Your task to perform on an android device: Open the calendar app, open the side menu, and click the "Day" option Image 0: 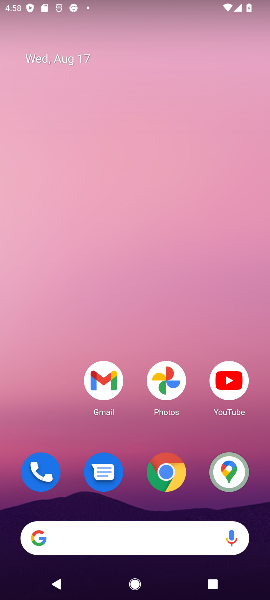
Step 0: drag from (138, 424) to (139, 83)
Your task to perform on an android device: Open the calendar app, open the side menu, and click the "Day" option Image 1: 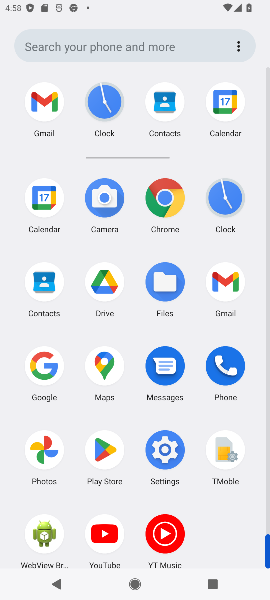
Step 1: click (228, 121)
Your task to perform on an android device: Open the calendar app, open the side menu, and click the "Day" option Image 2: 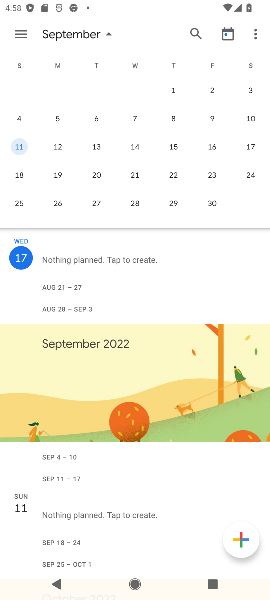
Step 2: click (16, 39)
Your task to perform on an android device: Open the calendar app, open the side menu, and click the "Day" option Image 3: 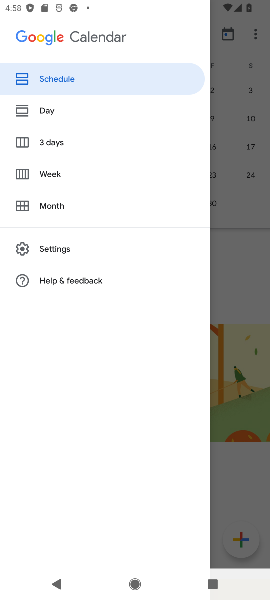
Step 3: click (62, 111)
Your task to perform on an android device: Open the calendar app, open the side menu, and click the "Day" option Image 4: 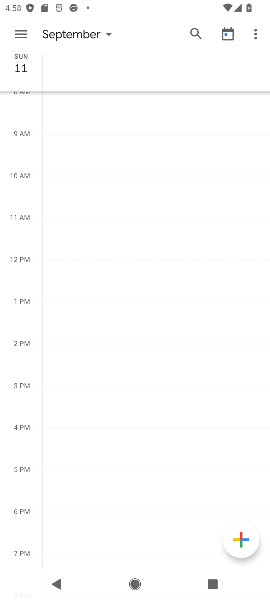
Step 4: task complete